Your task to perform on an android device: Open Wikipedia Image 0: 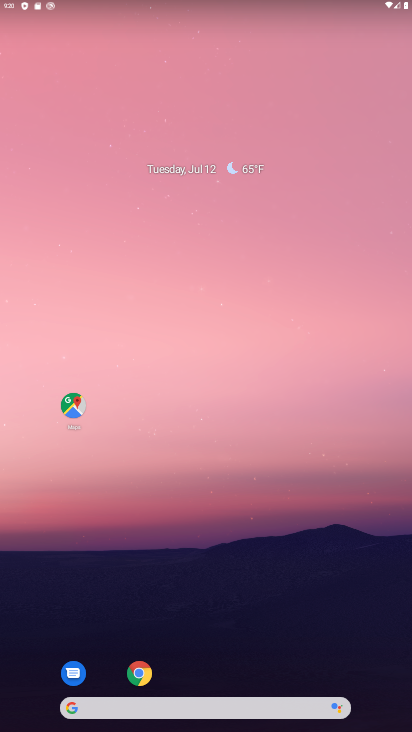
Step 0: drag from (348, 582) to (339, 114)
Your task to perform on an android device: Open Wikipedia Image 1: 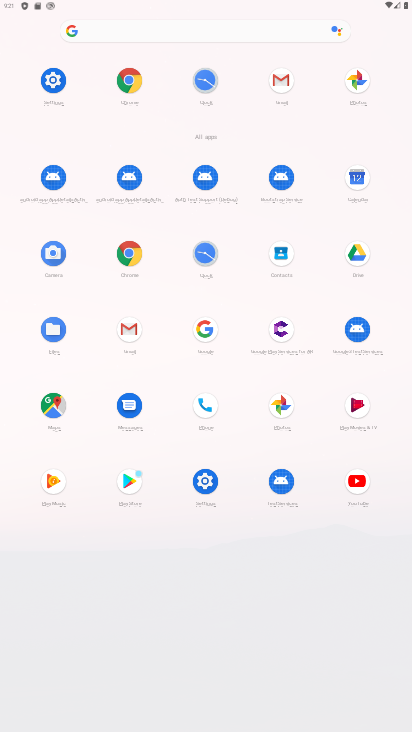
Step 1: click (130, 252)
Your task to perform on an android device: Open Wikipedia Image 2: 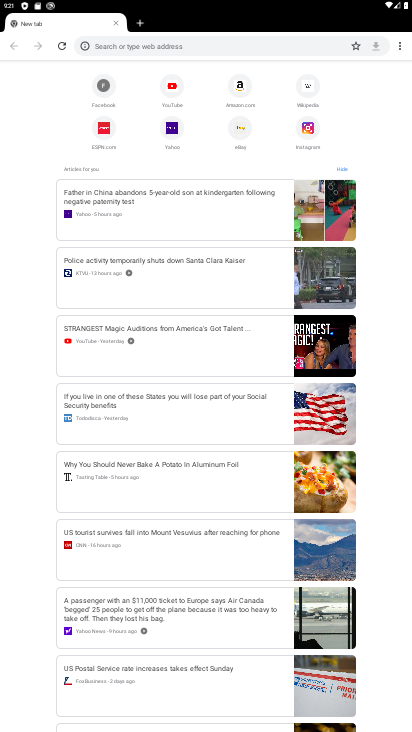
Step 2: click (238, 46)
Your task to perform on an android device: Open Wikipedia Image 3: 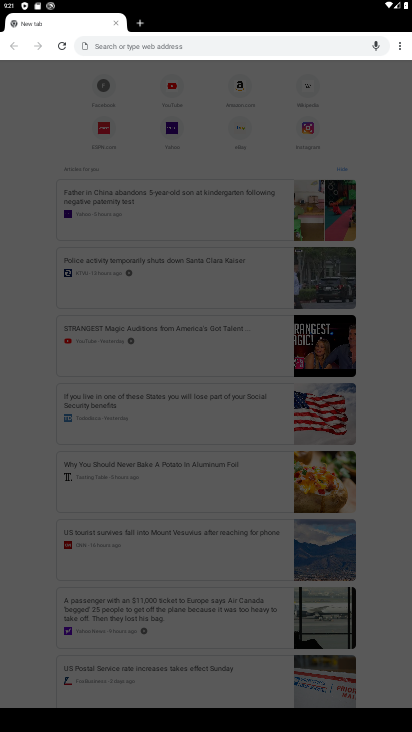
Step 3: type "wikipedia"
Your task to perform on an android device: Open Wikipedia Image 4: 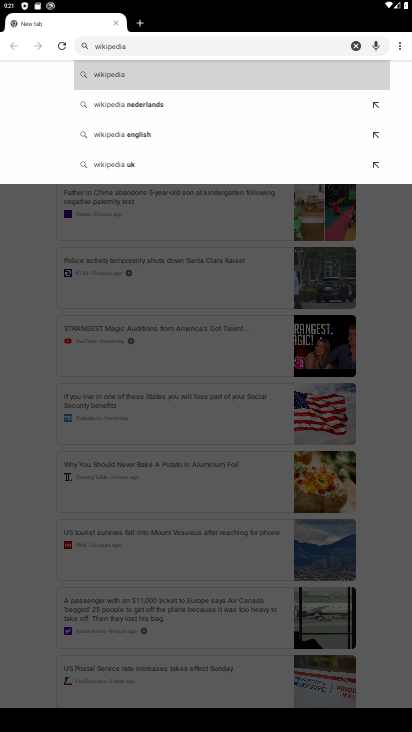
Step 4: click (150, 69)
Your task to perform on an android device: Open Wikipedia Image 5: 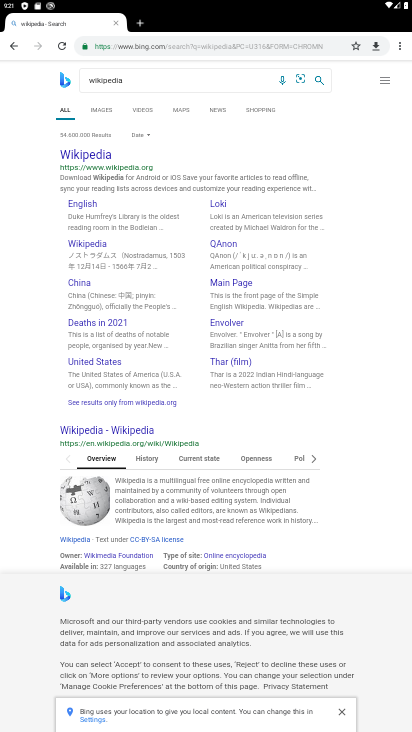
Step 5: task complete